Your task to perform on an android device: change alarm snooze length Image 0: 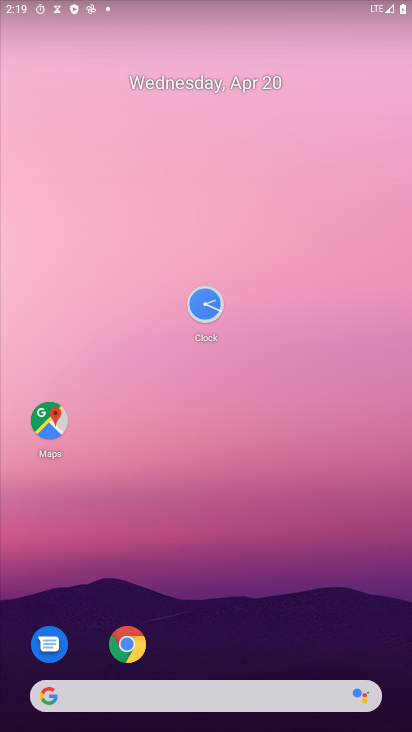
Step 0: drag from (337, 123) to (266, 28)
Your task to perform on an android device: change alarm snooze length Image 1: 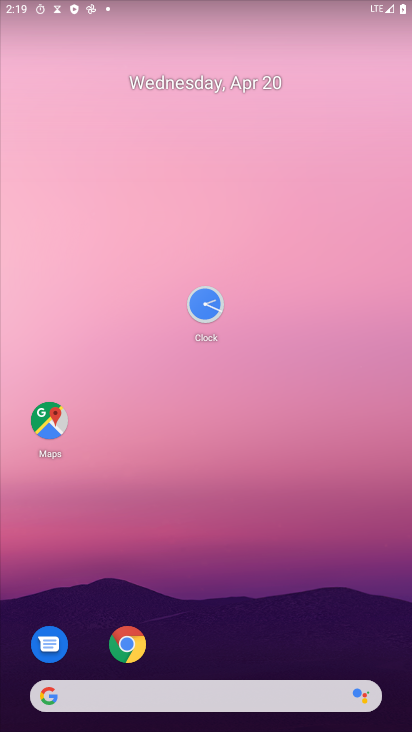
Step 1: drag from (275, 622) to (152, 16)
Your task to perform on an android device: change alarm snooze length Image 2: 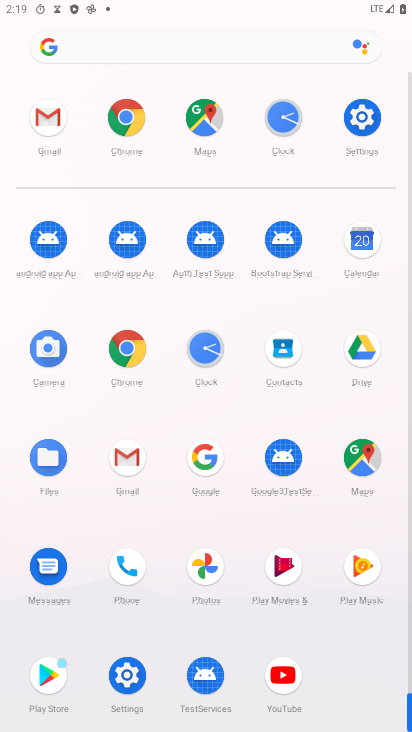
Step 2: click (201, 352)
Your task to perform on an android device: change alarm snooze length Image 3: 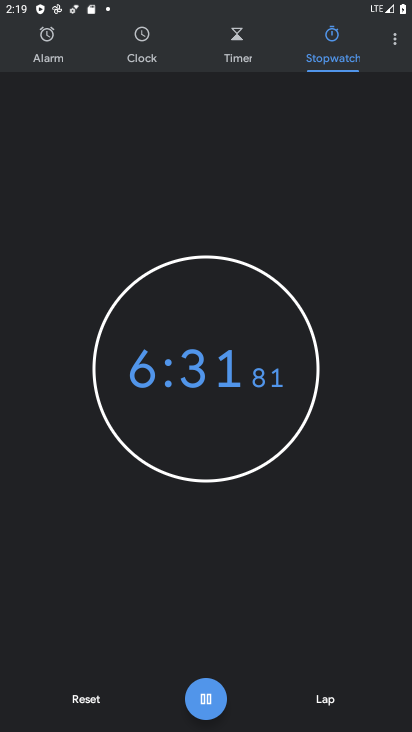
Step 3: click (403, 42)
Your task to perform on an android device: change alarm snooze length Image 4: 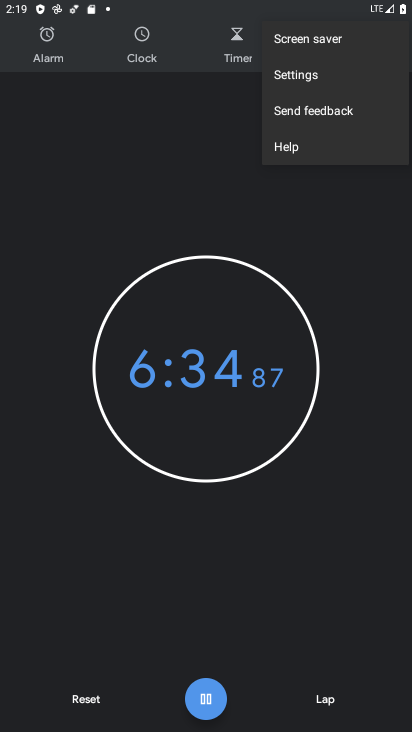
Step 4: click (319, 75)
Your task to perform on an android device: change alarm snooze length Image 5: 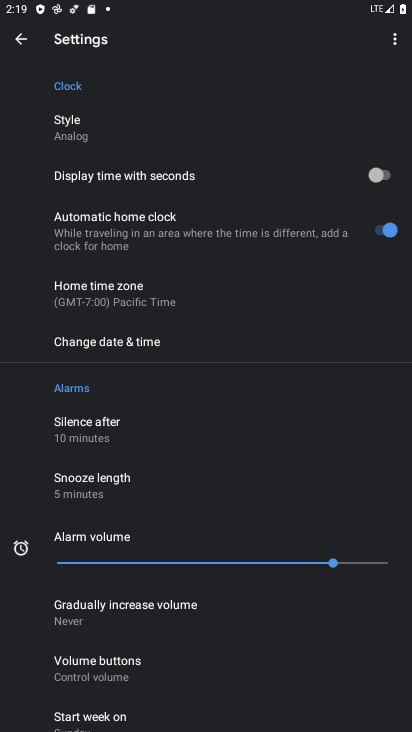
Step 5: click (132, 488)
Your task to perform on an android device: change alarm snooze length Image 6: 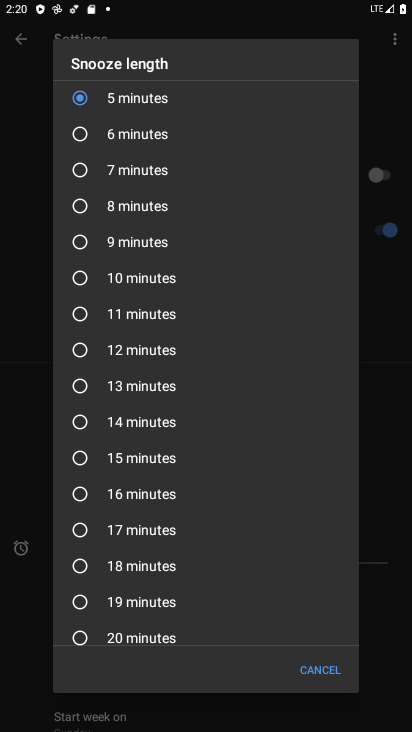
Step 6: click (78, 285)
Your task to perform on an android device: change alarm snooze length Image 7: 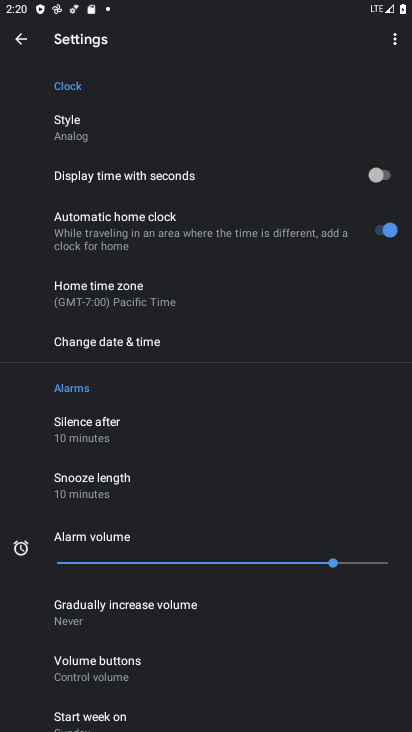
Step 7: task complete